Your task to perform on an android device: View the shopping cart on walmart.com. Search for "razer huntsman" on walmart.com, select the first entry, and add it to the cart. Image 0: 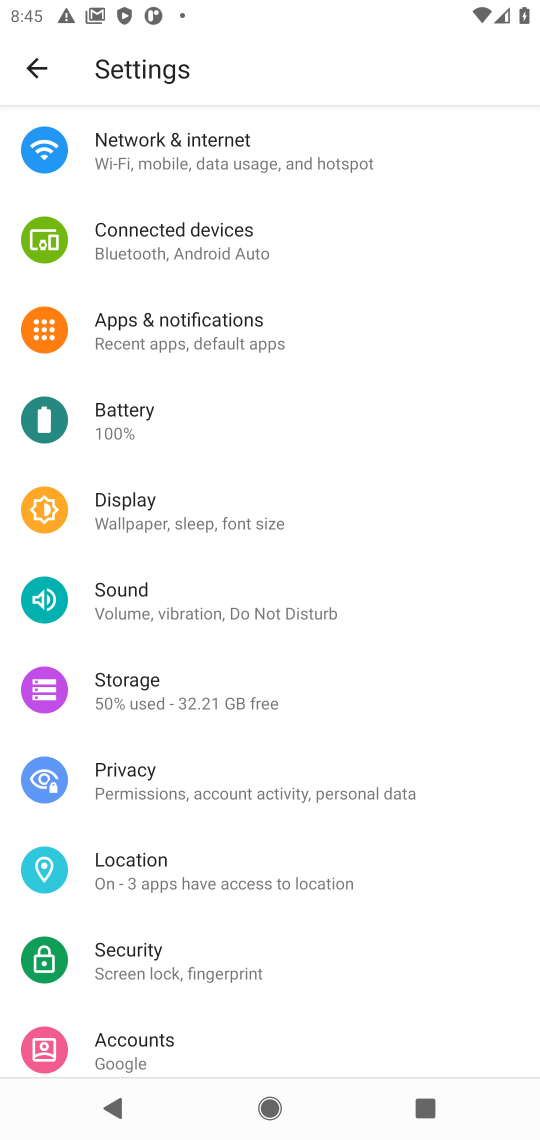
Step 0: press home button
Your task to perform on an android device: View the shopping cart on walmart.com. Search for "razer huntsman" on walmart.com, select the first entry, and add it to the cart. Image 1: 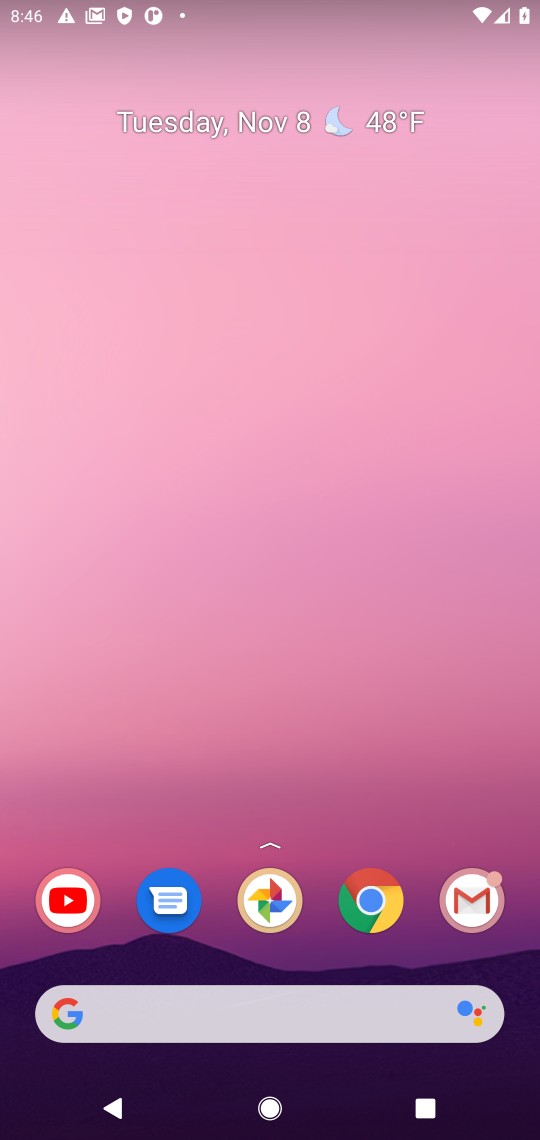
Step 1: click (362, 910)
Your task to perform on an android device: View the shopping cart on walmart.com. Search for "razer huntsman" on walmart.com, select the first entry, and add it to the cart. Image 2: 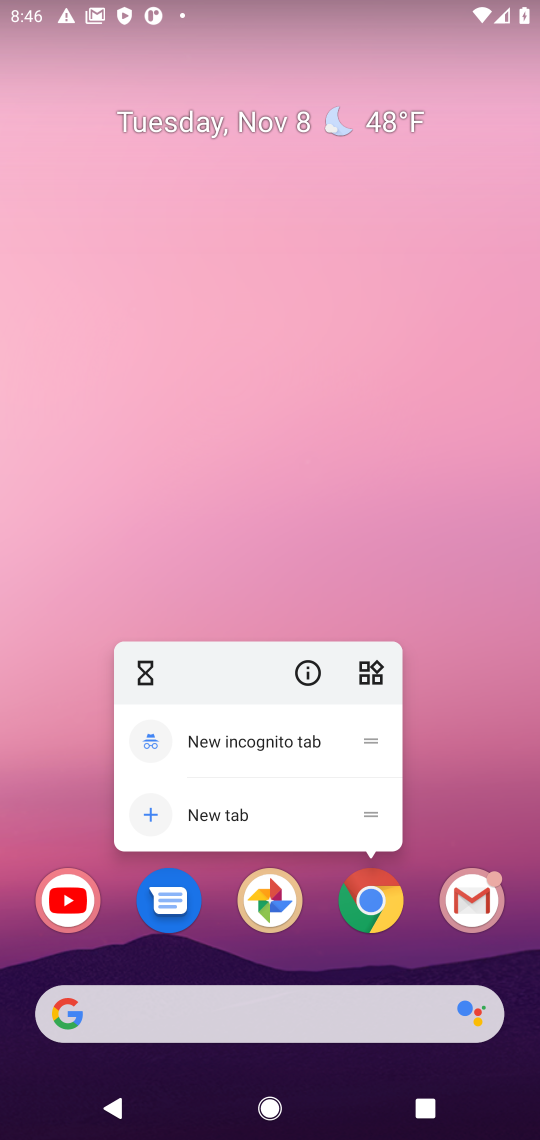
Step 2: click (363, 909)
Your task to perform on an android device: View the shopping cart on walmart.com. Search for "razer huntsman" on walmart.com, select the first entry, and add it to the cart. Image 3: 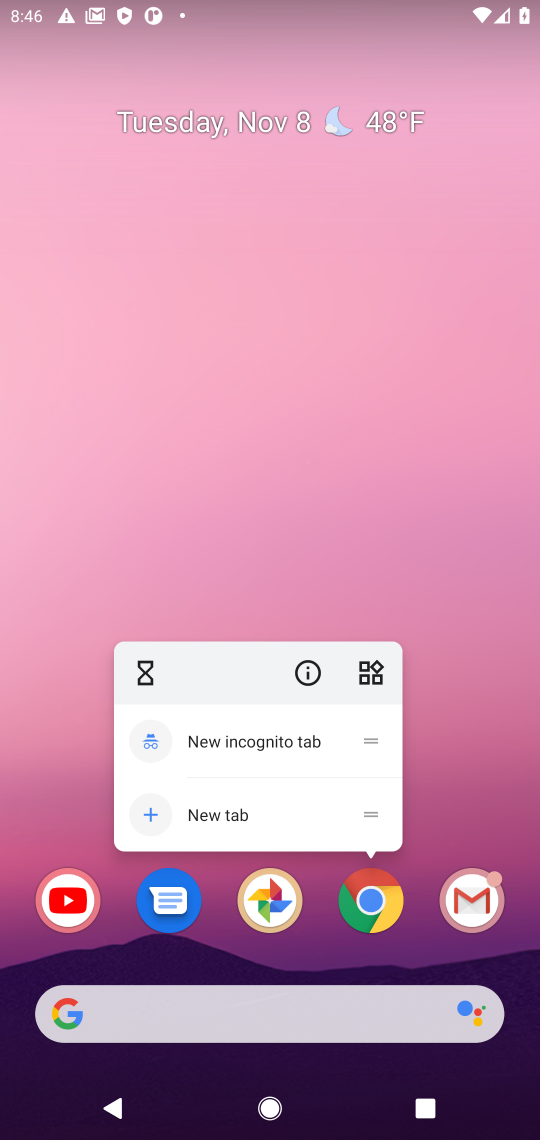
Step 3: click (390, 907)
Your task to perform on an android device: View the shopping cart on walmart.com. Search for "razer huntsman" on walmart.com, select the first entry, and add it to the cart. Image 4: 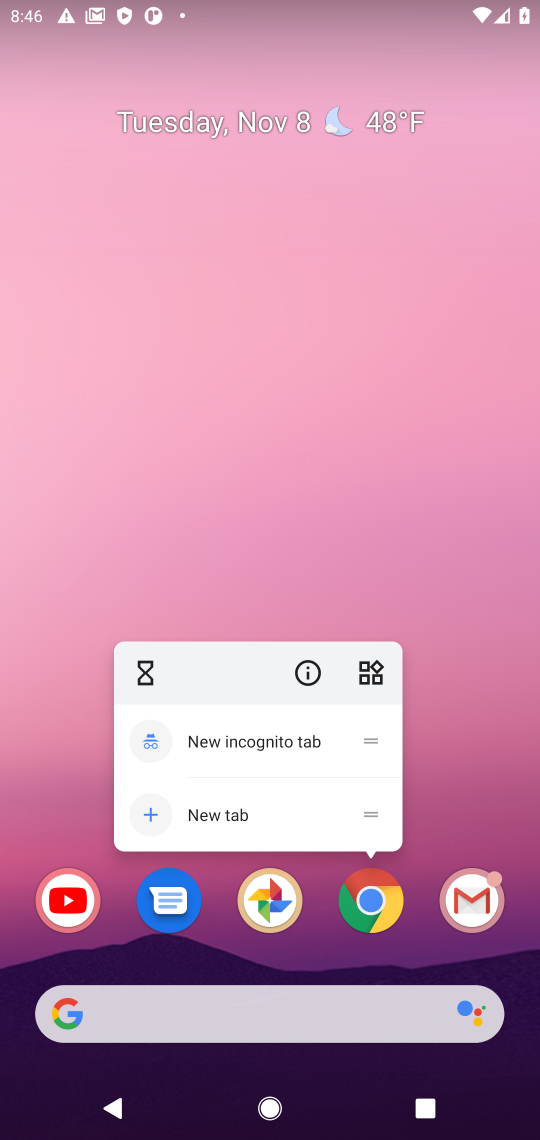
Step 4: click (366, 896)
Your task to perform on an android device: View the shopping cart on walmart.com. Search for "razer huntsman" on walmart.com, select the first entry, and add it to the cart. Image 5: 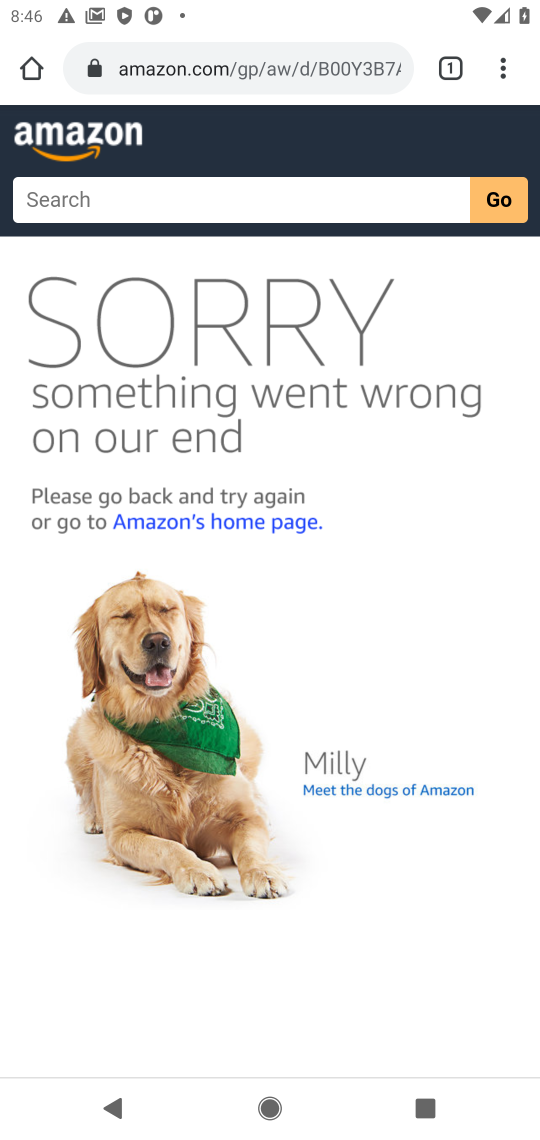
Step 5: click (185, 72)
Your task to perform on an android device: View the shopping cart on walmart.com. Search for "razer huntsman" on walmart.com, select the first entry, and add it to the cart. Image 6: 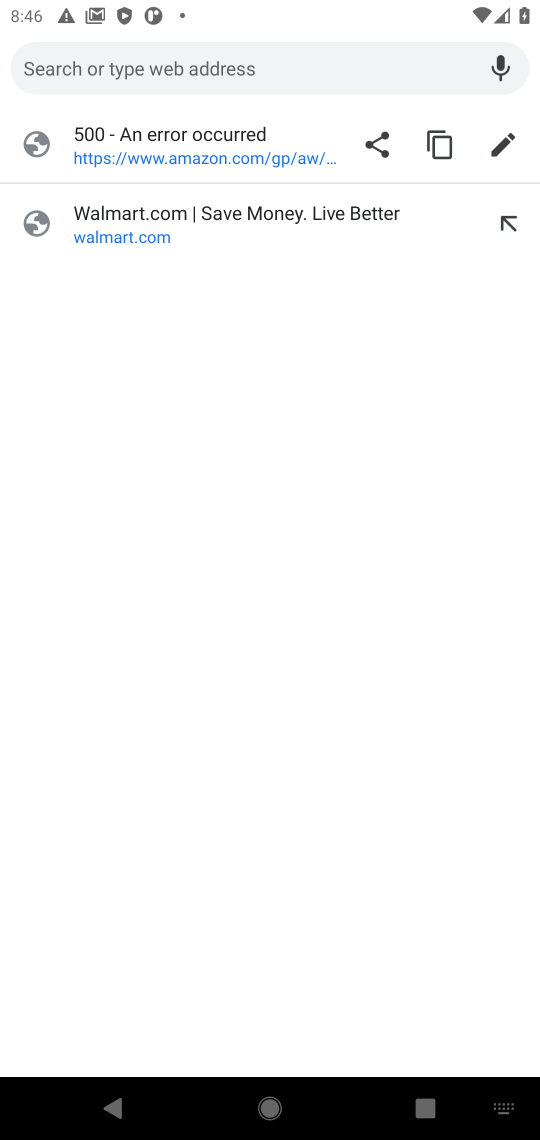
Step 6: type "walmart"
Your task to perform on an android device: View the shopping cart on walmart.com. Search for "razer huntsman" on walmart.com, select the first entry, and add it to the cart. Image 7: 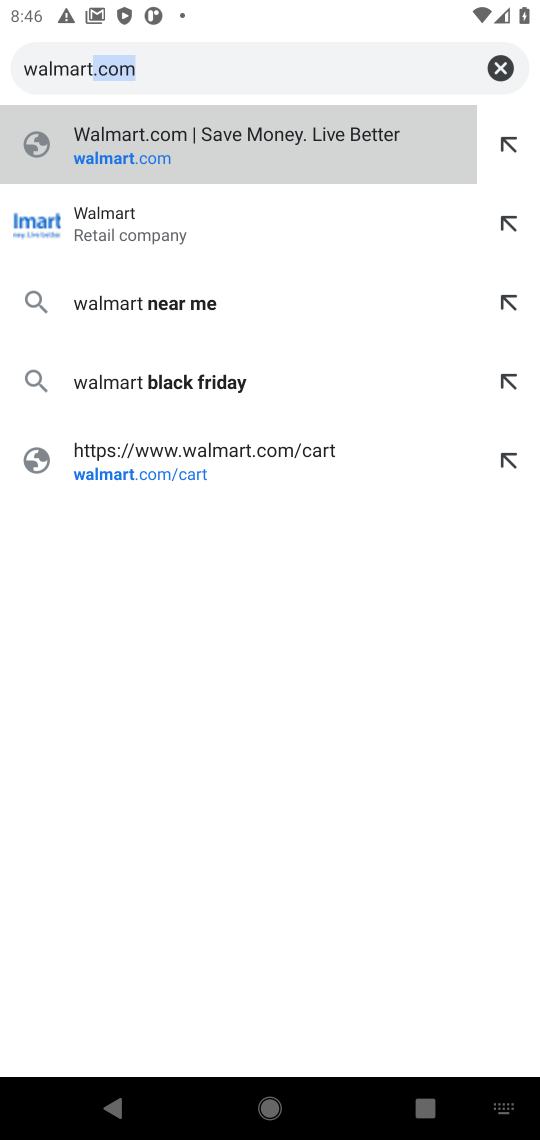
Step 7: click (96, 218)
Your task to perform on an android device: View the shopping cart on walmart.com. Search for "razer huntsman" on walmart.com, select the first entry, and add it to the cart. Image 8: 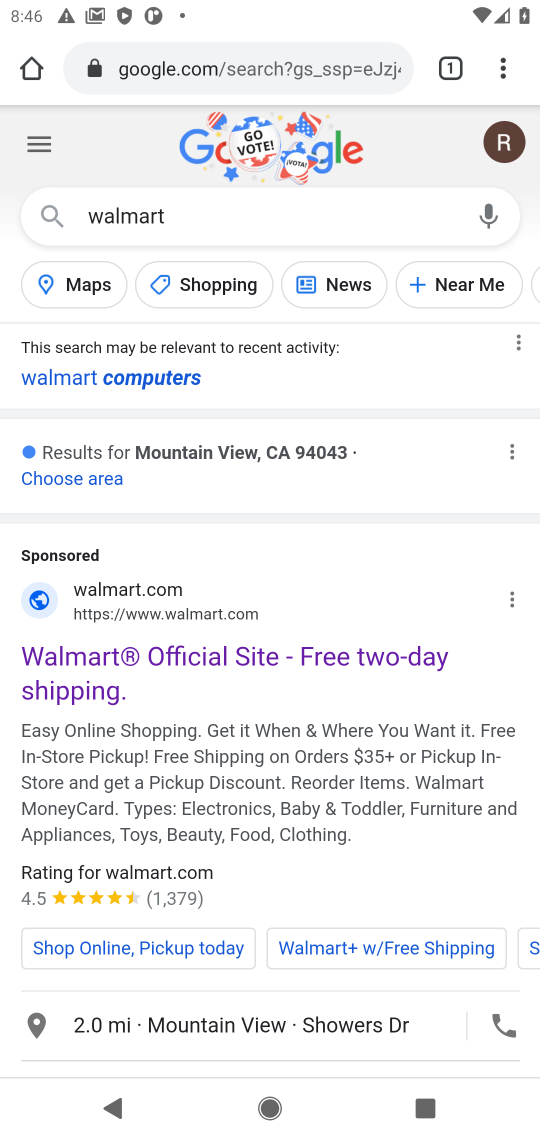
Step 8: drag from (178, 822) to (211, 271)
Your task to perform on an android device: View the shopping cart on walmart.com. Search for "razer huntsman" on walmart.com, select the first entry, and add it to the cart. Image 9: 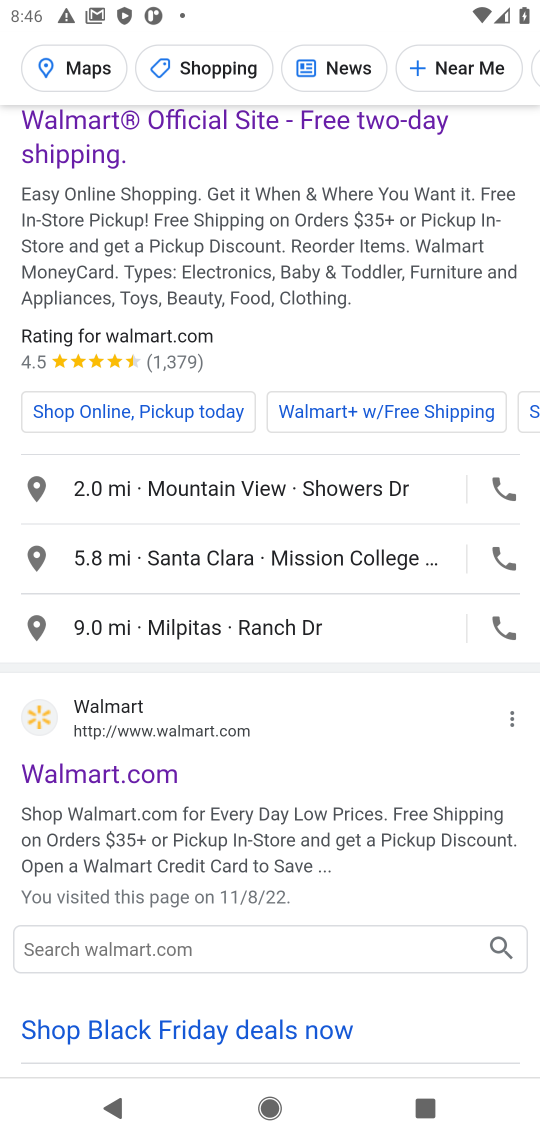
Step 9: click (101, 769)
Your task to perform on an android device: View the shopping cart on walmart.com. Search for "razer huntsman" on walmart.com, select the first entry, and add it to the cart. Image 10: 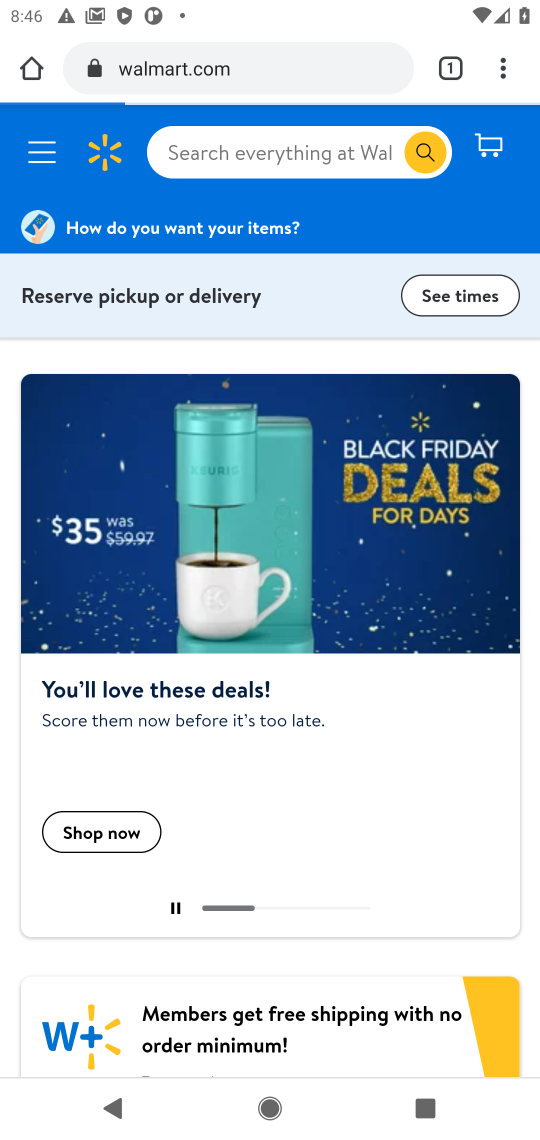
Step 10: click (248, 149)
Your task to perform on an android device: View the shopping cart on walmart.com. Search for "razer huntsman" on walmart.com, select the first entry, and add it to the cart. Image 11: 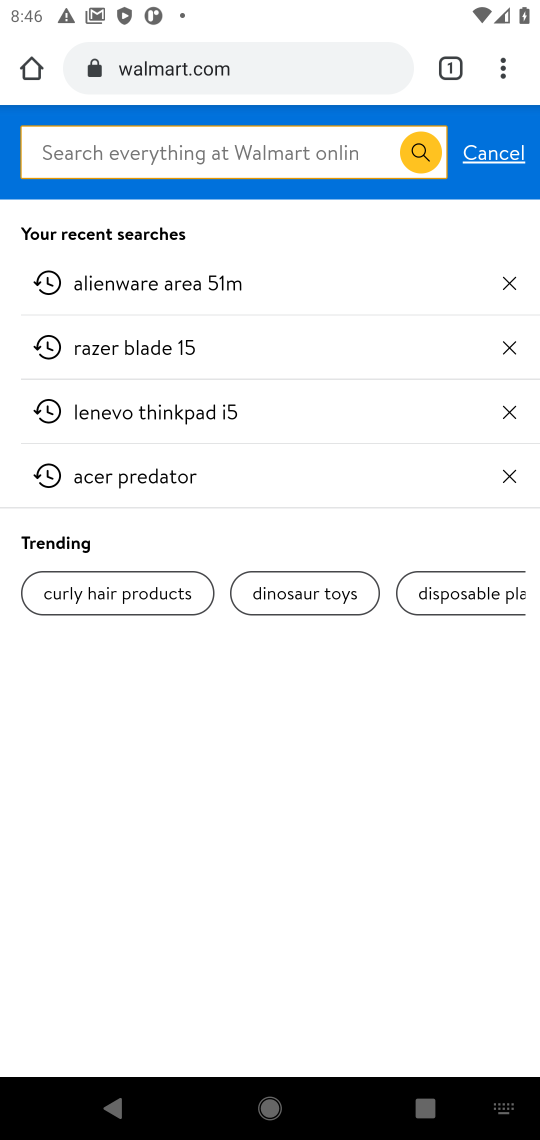
Step 11: type "razer huntsman"
Your task to perform on an android device: View the shopping cart on walmart.com. Search for "razer huntsman" on walmart.com, select the first entry, and add it to the cart. Image 12: 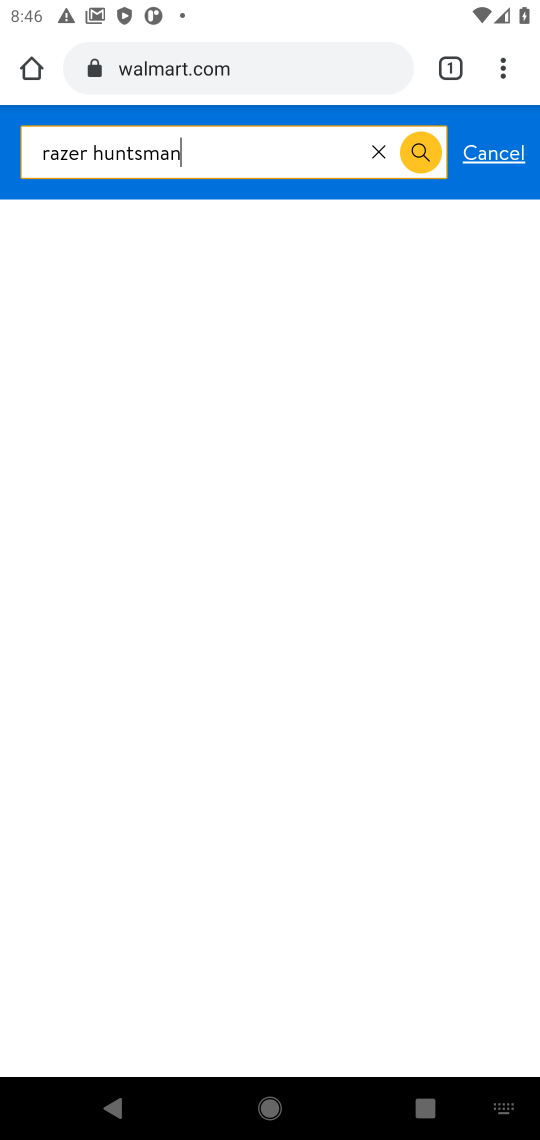
Step 12: type ""
Your task to perform on an android device: View the shopping cart on walmart.com. Search for "razer huntsman" on walmart.com, select the first entry, and add it to the cart. Image 13: 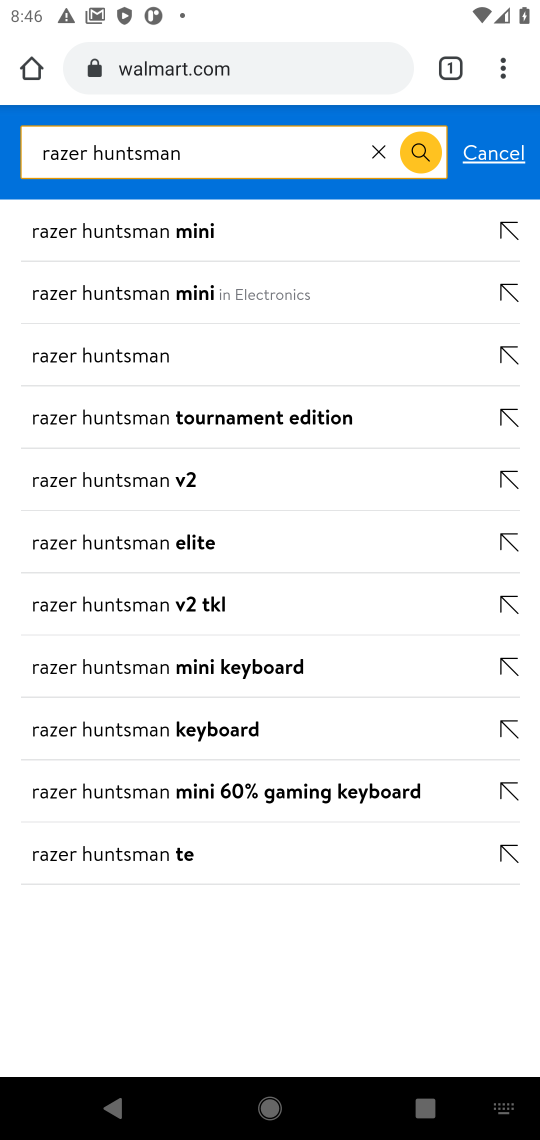
Step 13: click (151, 238)
Your task to perform on an android device: View the shopping cart on walmart.com. Search for "razer huntsman" on walmart.com, select the first entry, and add it to the cart. Image 14: 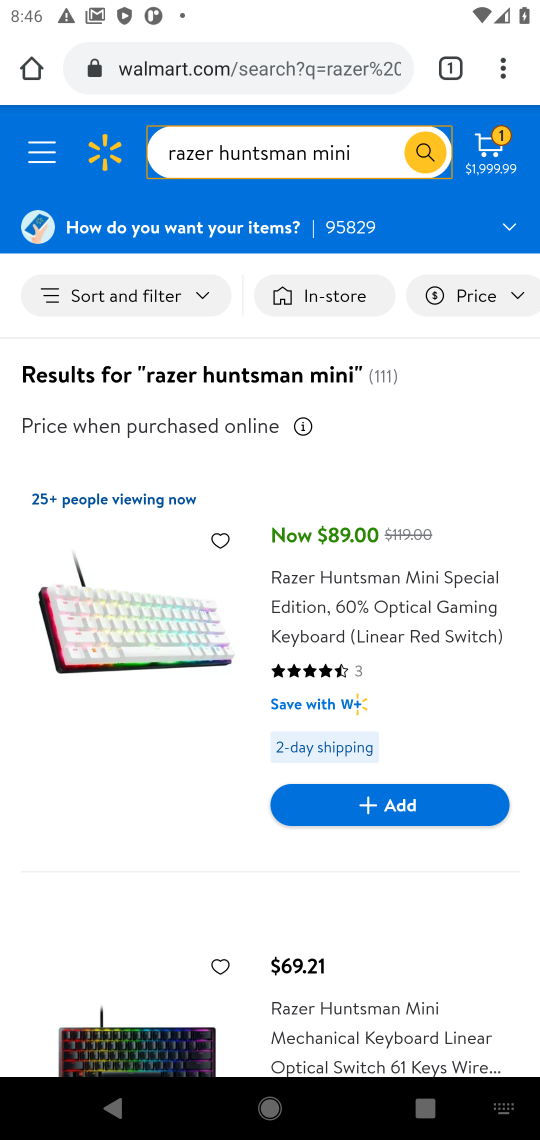
Step 14: click (108, 618)
Your task to perform on an android device: View the shopping cart on walmart.com. Search for "razer huntsman" on walmart.com, select the first entry, and add it to the cart. Image 15: 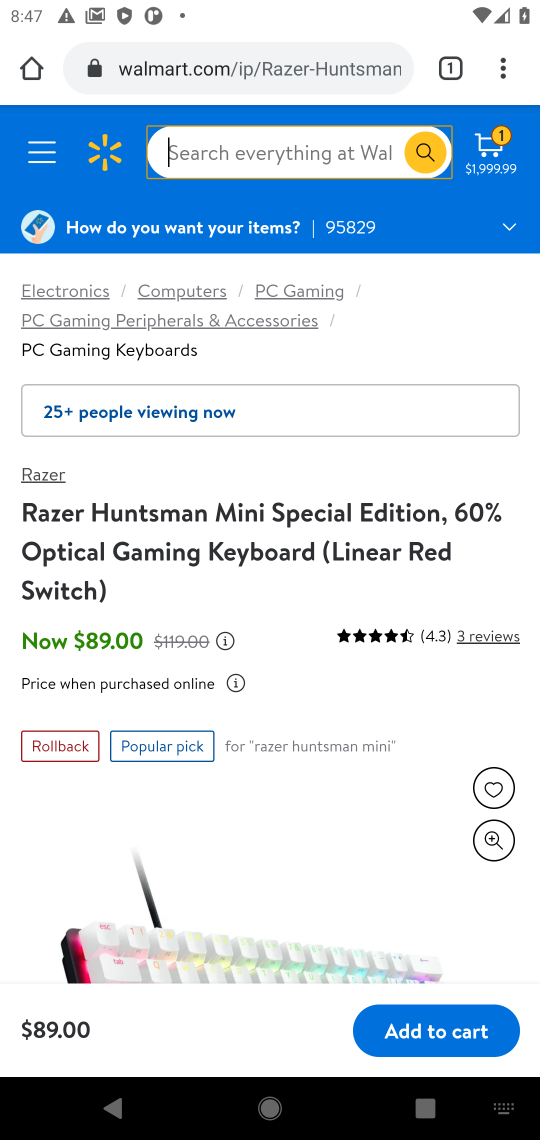
Step 15: drag from (231, 866) to (267, 506)
Your task to perform on an android device: View the shopping cart on walmart.com. Search for "razer huntsman" on walmart.com, select the first entry, and add it to the cart. Image 16: 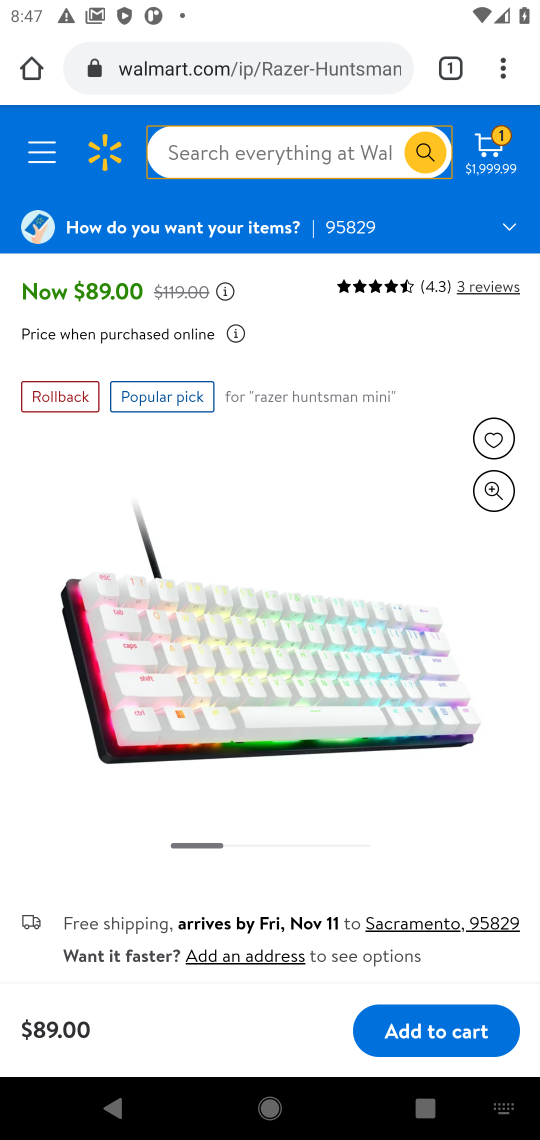
Step 16: click (448, 1033)
Your task to perform on an android device: View the shopping cart on walmart.com. Search for "razer huntsman" on walmart.com, select the first entry, and add it to the cart. Image 17: 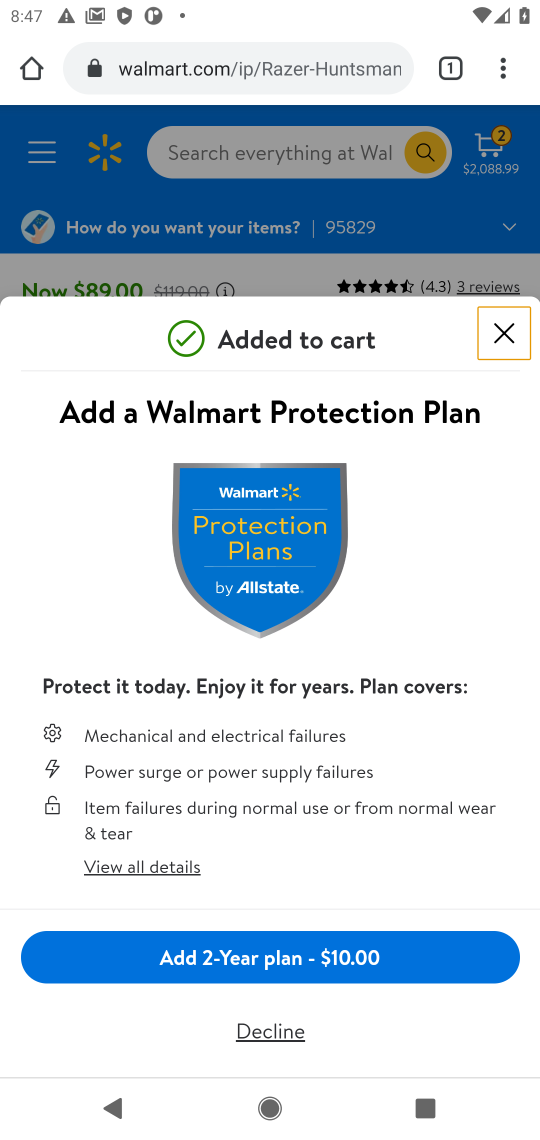
Step 17: click (516, 336)
Your task to perform on an android device: View the shopping cart on walmart.com. Search for "razer huntsman" on walmart.com, select the first entry, and add it to the cart. Image 18: 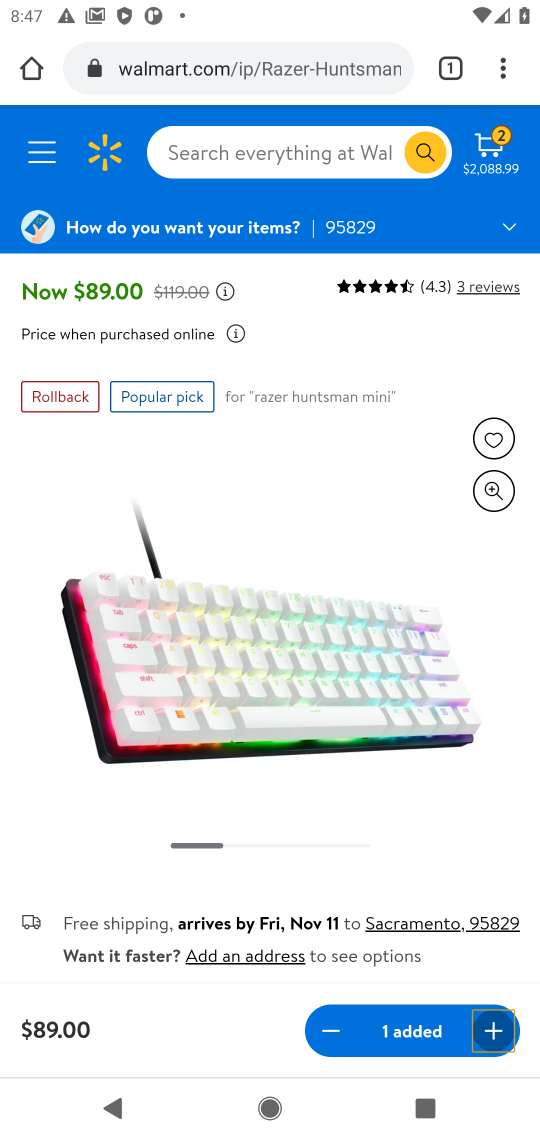
Step 18: click (494, 154)
Your task to perform on an android device: View the shopping cart on walmart.com. Search for "razer huntsman" on walmart.com, select the first entry, and add it to the cart. Image 19: 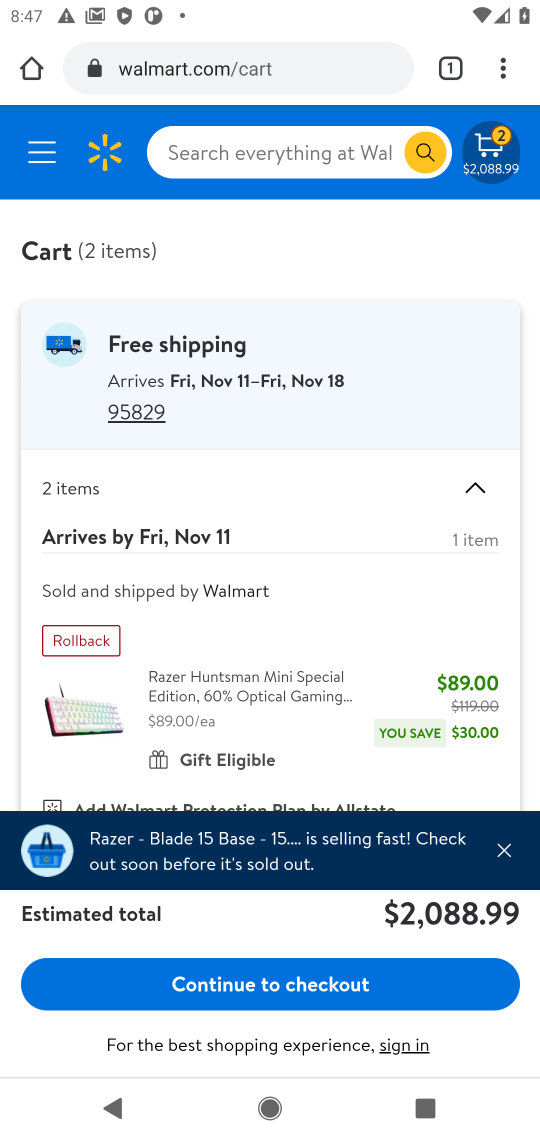
Step 19: drag from (286, 639) to (299, 494)
Your task to perform on an android device: View the shopping cart on walmart.com. Search for "razer huntsman" on walmart.com, select the first entry, and add it to the cart. Image 20: 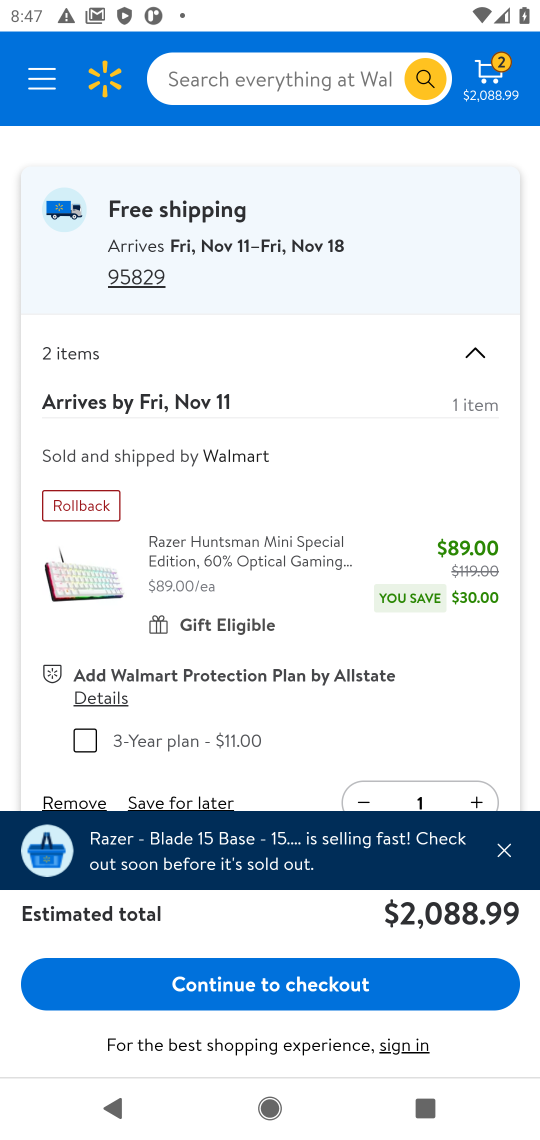
Step 20: click (509, 854)
Your task to perform on an android device: View the shopping cart on walmart.com. Search for "razer huntsman" on walmart.com, select the first entry, and add it to the cart. Image 21: 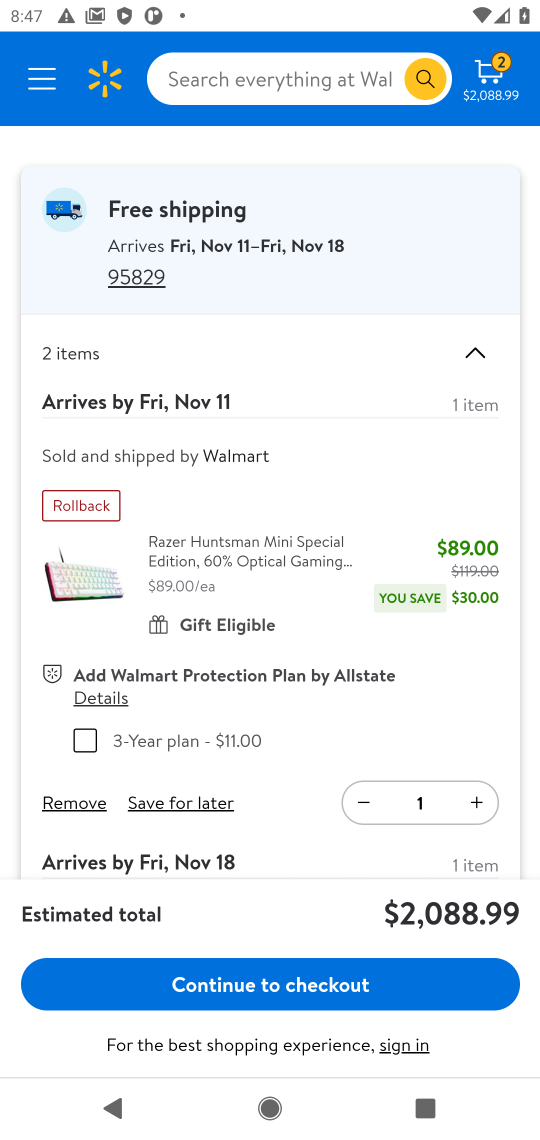
Step 21: task complete